Your task to perform on an android device: Open notification settings Image 0: 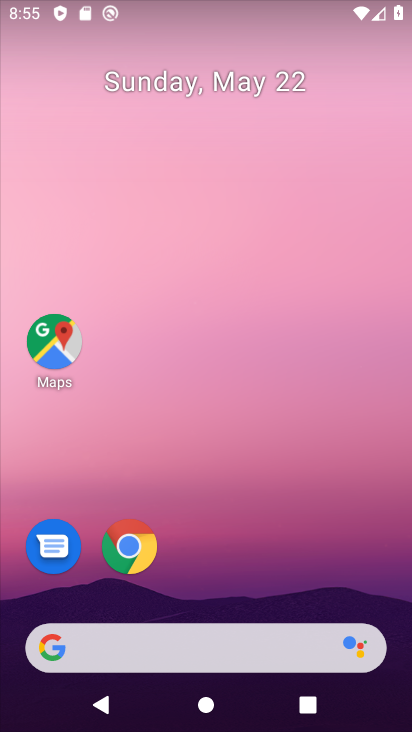
Step 0: drag from (165, 611) to (219, 39)
Your task to perform on an android device: Open notification settings Image 1: 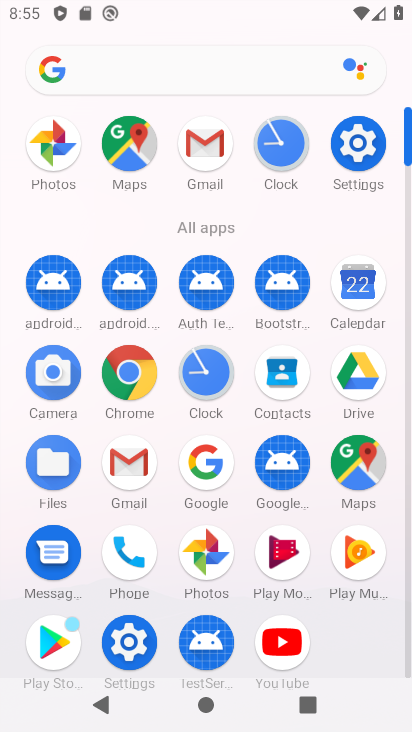
Step 1: drag from (215, 609) to (285, 84)
Your task to perform on an android device: Open notification settings Image 2: 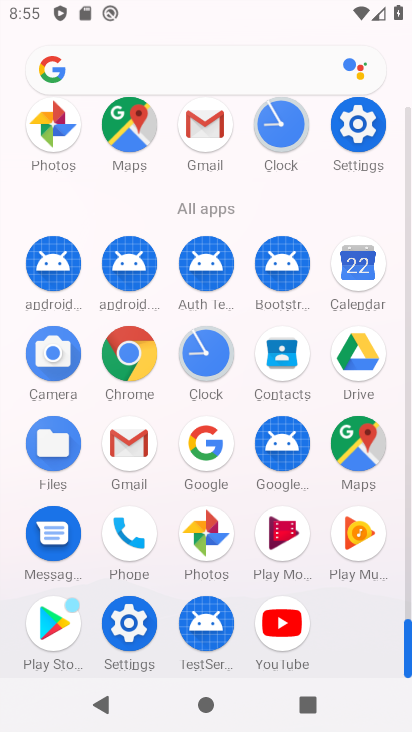
Step 2: click (354, 116)
Your task to perform on an android device: Open notification settings Image 3: 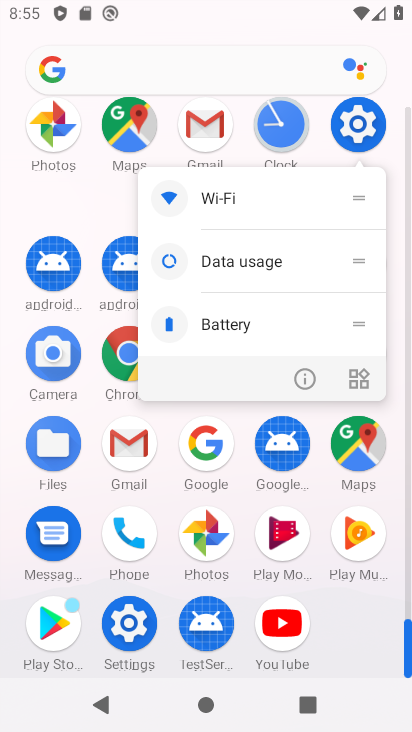
Step 3: click (307, 384)
Your task to perform on an android device: Open notification settings Image 4: 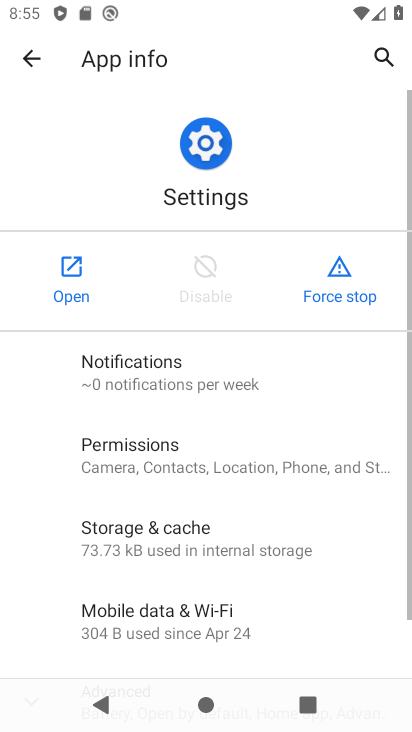
Step 4: click (65, 271)
Your task to perform on an android device: Open notification settings Image 5: 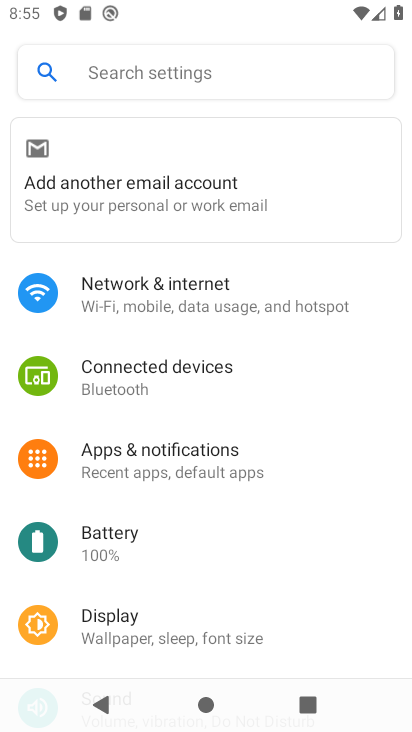
Step 5: click (166, 449)
Your task to perform on an android device: Open notification settings Image 6: 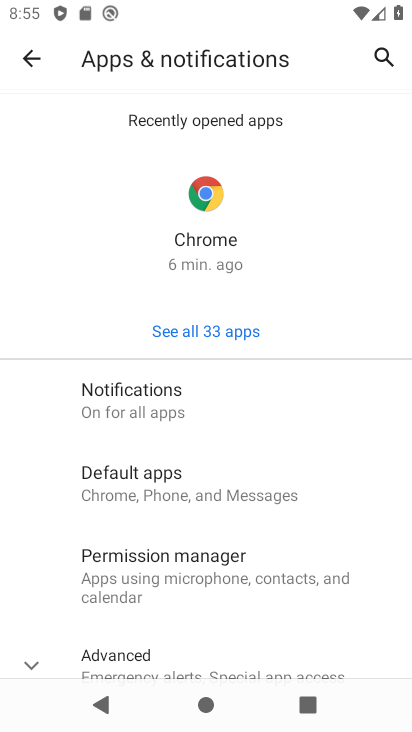
Step 6: click (164, 395)
Your task to perform on an android device: Open notification settings Image 7: 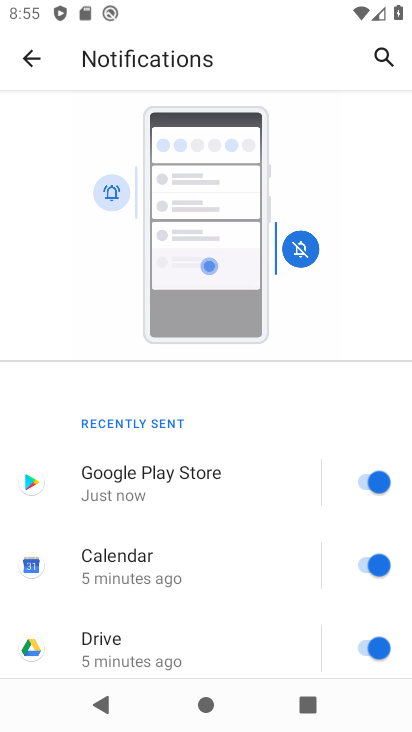
Step 7: task complete